Your task to perform on an android device: Go to notification settings Image 0: 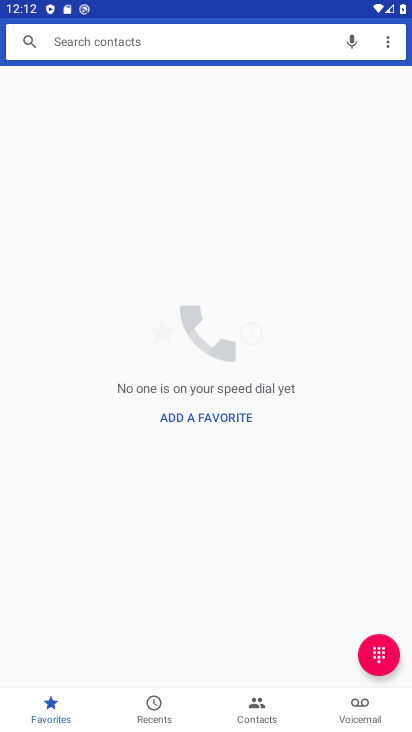
Step 0: press home button
Your task to perform on an android device: Go to notification settings Image 1: 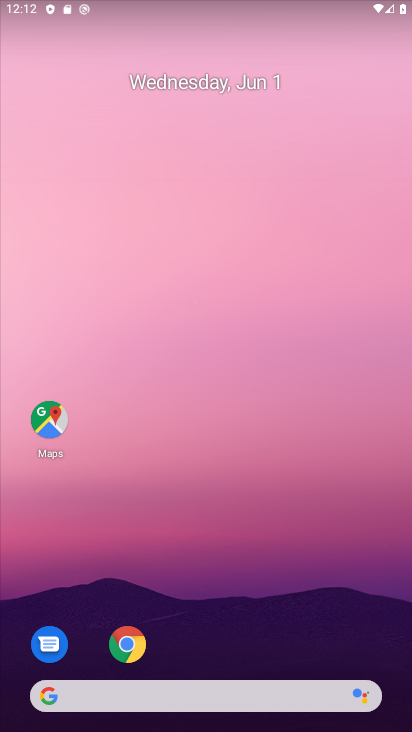
Step 1: drag from (219, 651) to (205, 136)
Your task to perform on an android device: Go to notification settings Image 2: 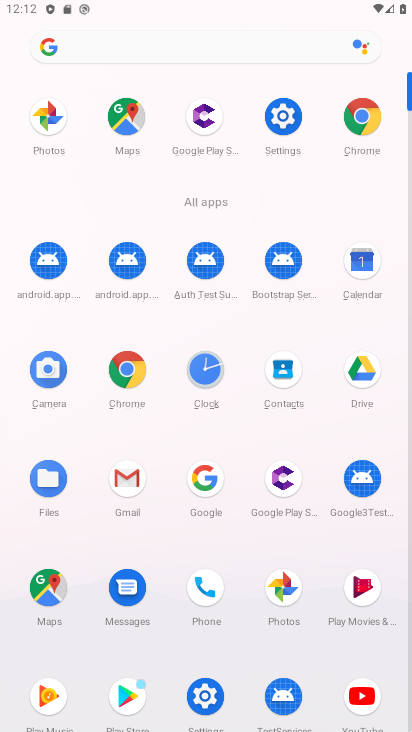
Step 2: click (207, 688)
Your task to perform on an android device: Go to notification settings Image 3: 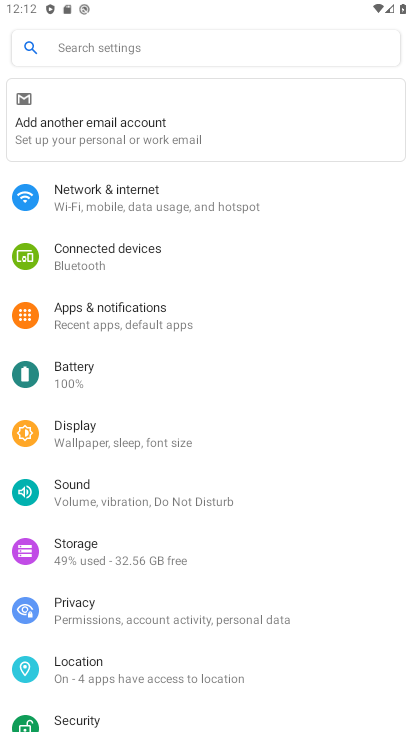
Step 3: click (165, 308)
Your task to perform on an android device: Go to notification settings Image 4: 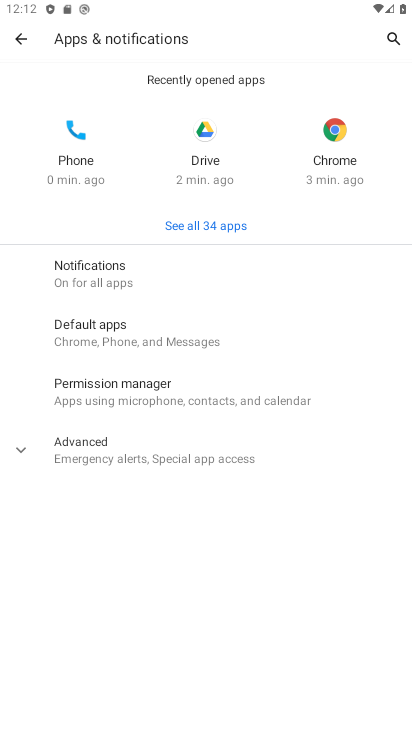
Step 4: task complete